Your task to perform on an android device: toggle notifications settings in the gmail app Image 0: 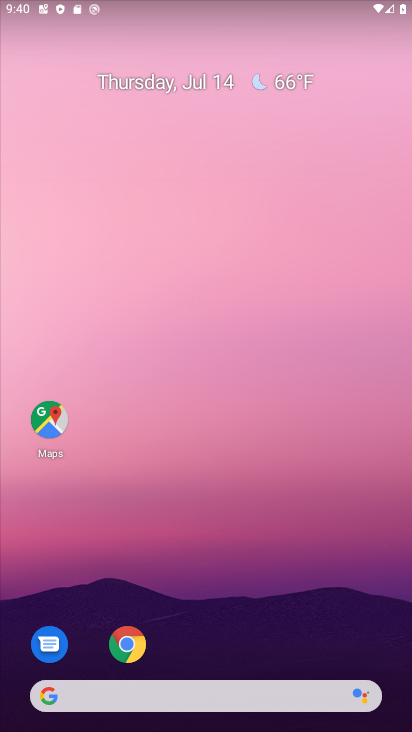
Step 0: drag from (264, 626) to (251, 286)
Your task to perform on an android device: toggle notifications settings in the gmail app Image 1: 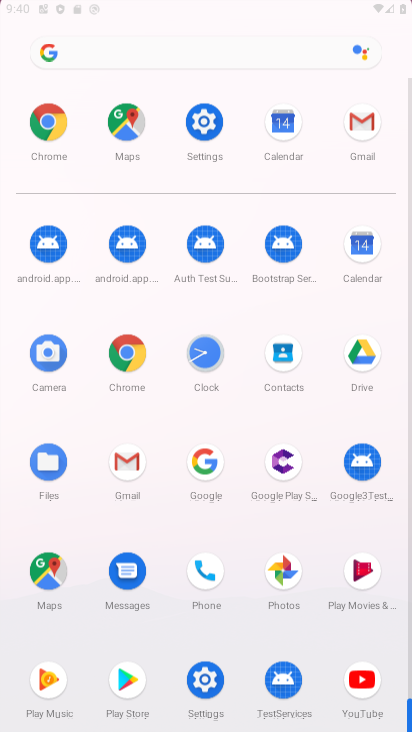
Step 1: click (167, 107)
Your task to perform on an android device: toggle notifications settings in the gmail app Image 2: 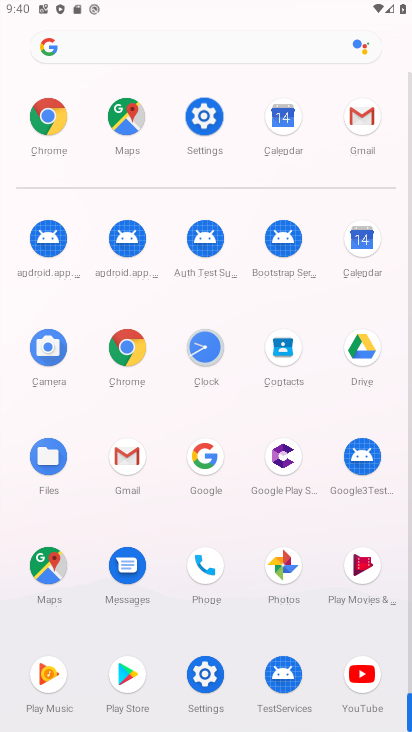
Step 2: drag from (258, 534) to (236, 150)
Your task to perform on an android device: toggle notifications settings in the gmail app Image 3: 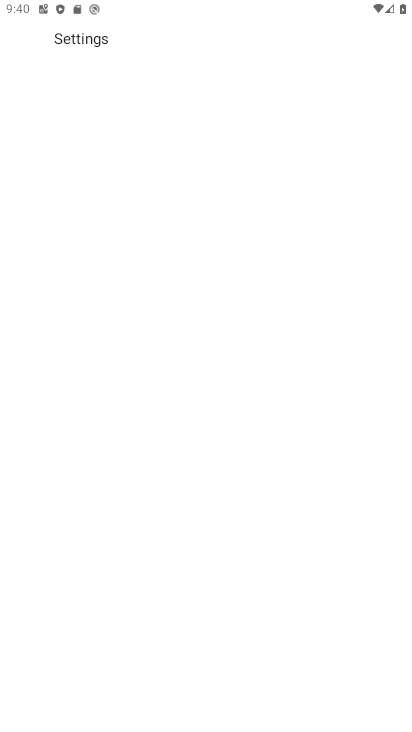
Step 3: click (246, 226)
Your task to perform on an android device: toggle notifications settings in the gmail app Image 4: 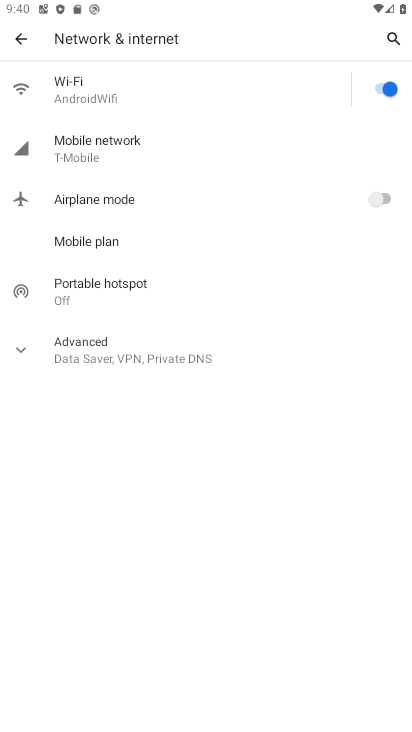
Step 4: press home button
Your task to perform on an android device: toggle notifications settings in the gmail app Image 5: 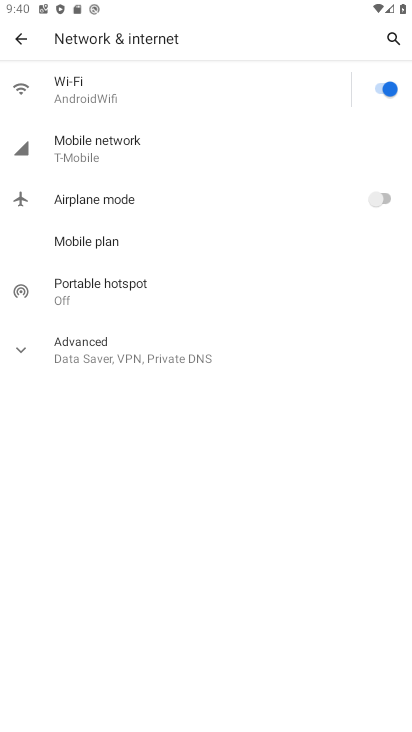
Step 5: press home button
Your task to perform on an android device: toggle notifications settings in the gmail app Image 6: 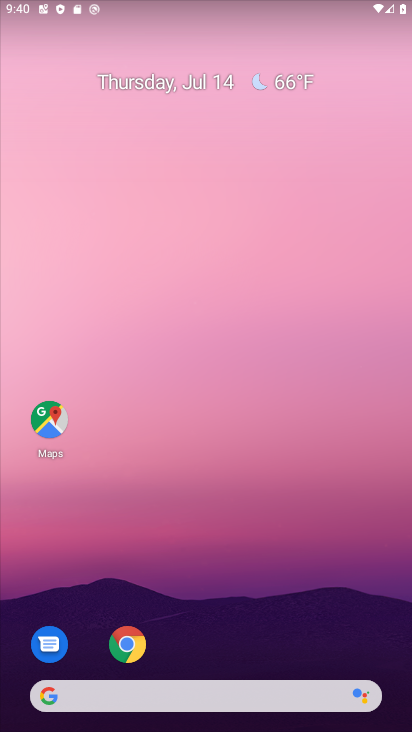
Step 6: click (197, 197)
Your task to perform on an android device: toggle notifications settings in the gmail app Image 7: 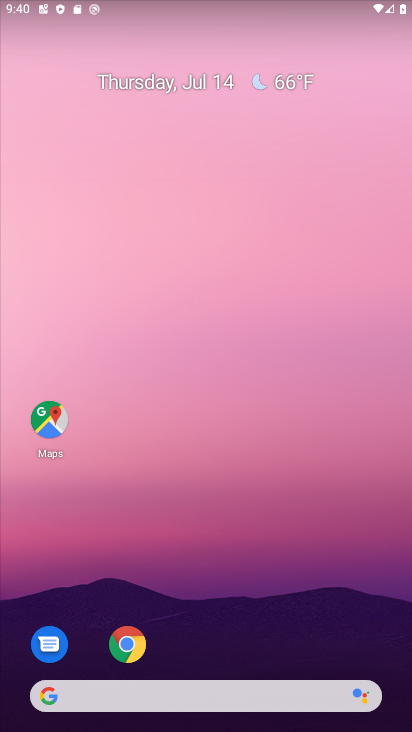
Step 7: click (191, 326)
Your task to perform on an android device: toggle notifications settings in the gmail app Image 8: 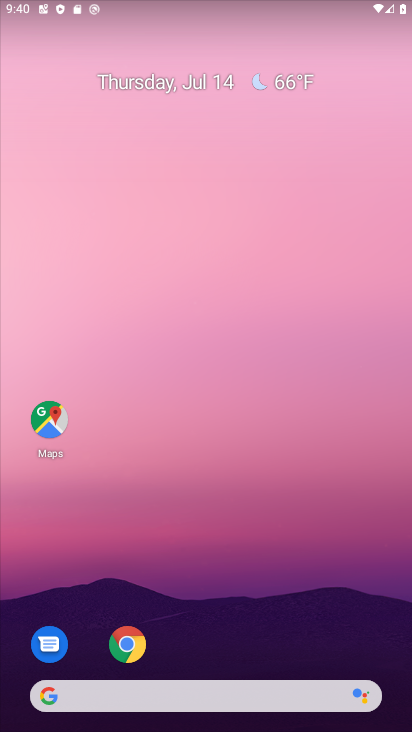
Step 8: drag from (272, 509) to (189, 284)
Your task to perform on an android device: toggle notifications settings in the gmail app Image 9: 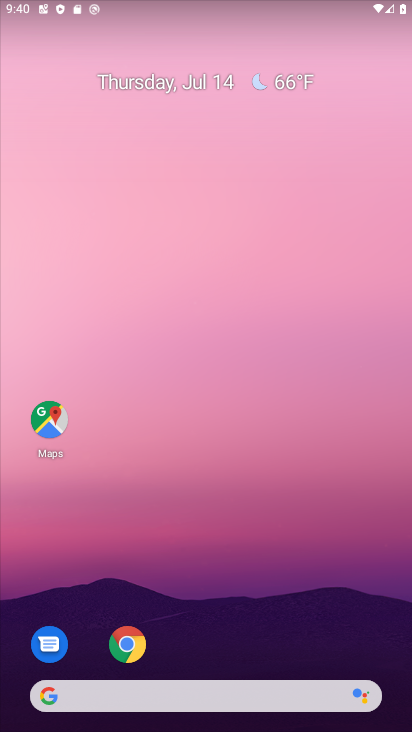
Step 9: drag from (189, 516) to (166, 173)
Your task to perform on an android device: toggle notifications settings in the gmail app Image 10: 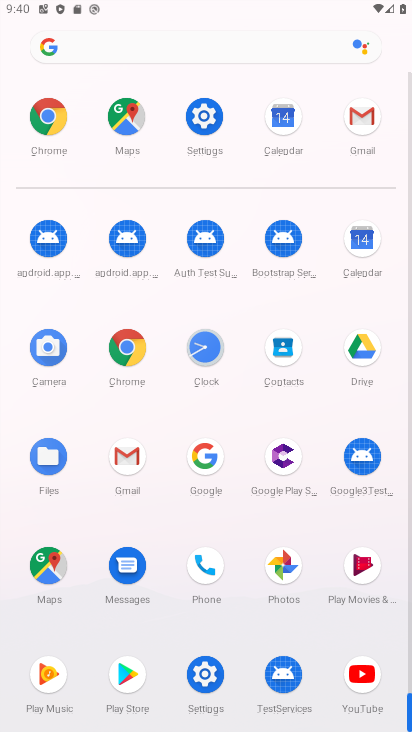
Step 10: drag from (181, 572) to (197, 162)
Your task to perform on an android device: toggle notifications settings in the gmail app Image 11: 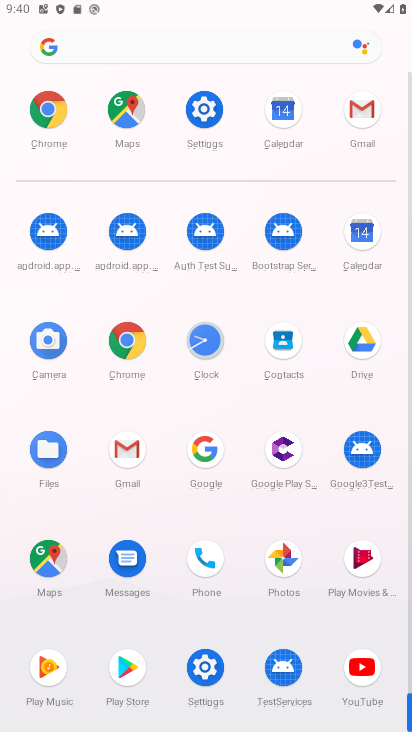
Step 11: click (370, 124)
Your task to perform on an android device: toggle notifications settings in the gmail app Image 12: 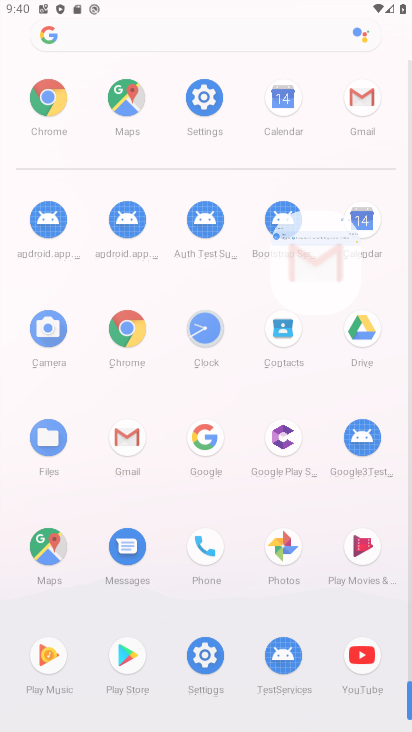
Step 12: click (364, 117)
Your task to perform on an android device: toggle notifications settings in the gmail app Image 13: 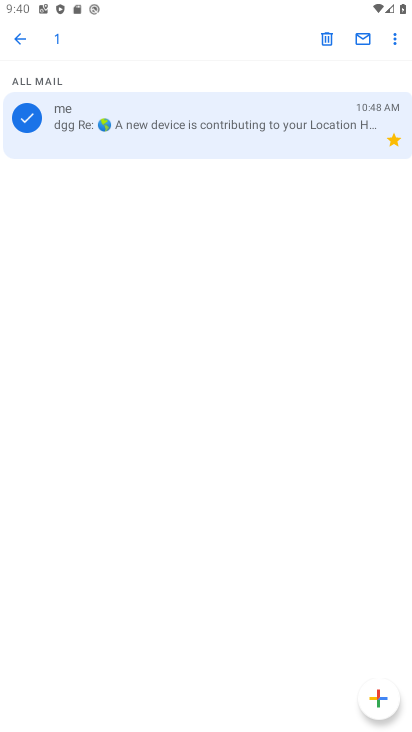
Step 13: click (364, 117)
Your task to perform on an android device: toggle notifications settings in the gmail app Image 14: 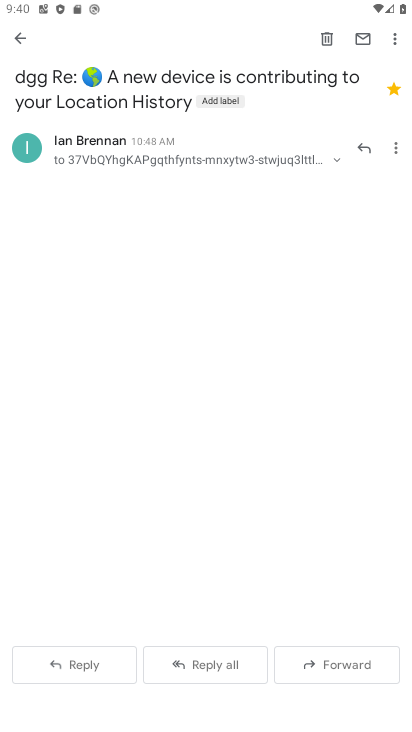
Step 14: click (12, 32)
Your task to perform on an android device: toggle notifications settings in the gmail app Image 15: 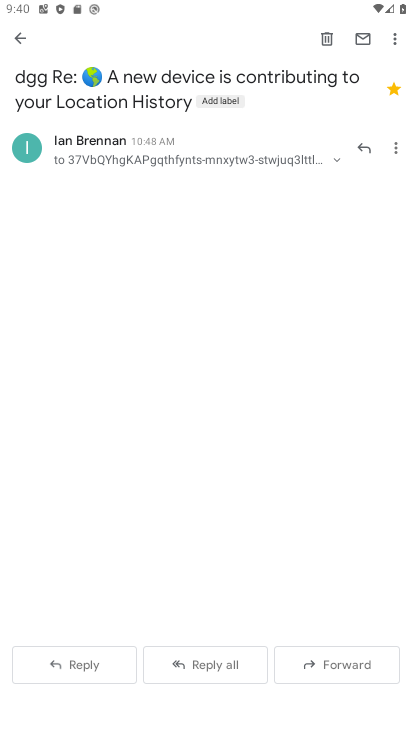
Step 15: click (25, 40)
Your task to perform on an android device: toggle notifications settings in the gmail app Image 16: 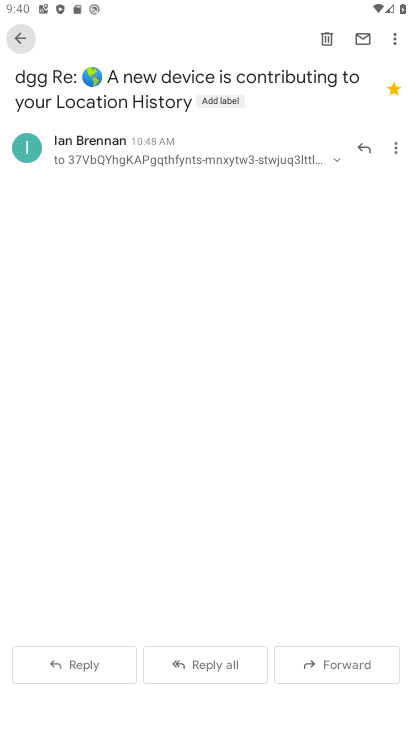
Step 16: click (25, 39)
Your task to perform on an android device: toggle notifications settings in the gmail app Image 17: 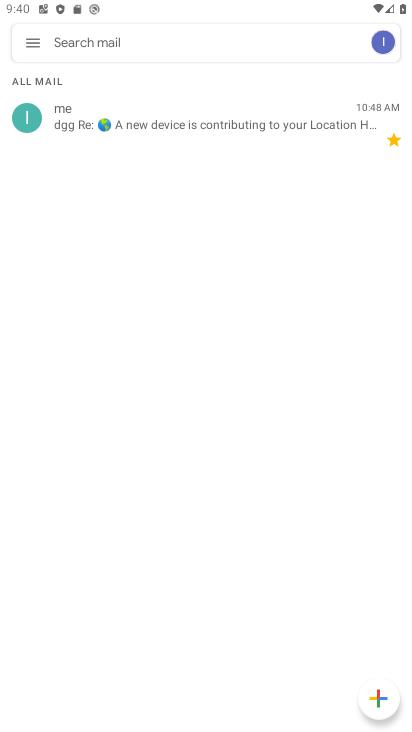
Step 17: drag from (32, 38) to (32, 179)
Your task to perform on an android device: toggle notifications settings in the gmail app Image 18: 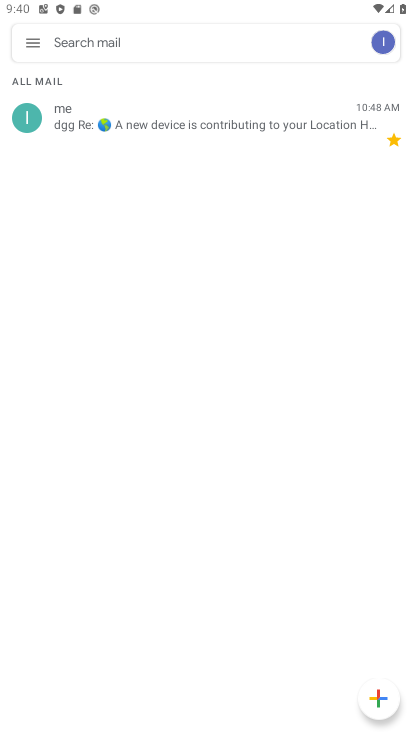
Step 18: click (26, 43)
Your task to perform on an android device: toggle notifications settings in the gmail app Image 19: 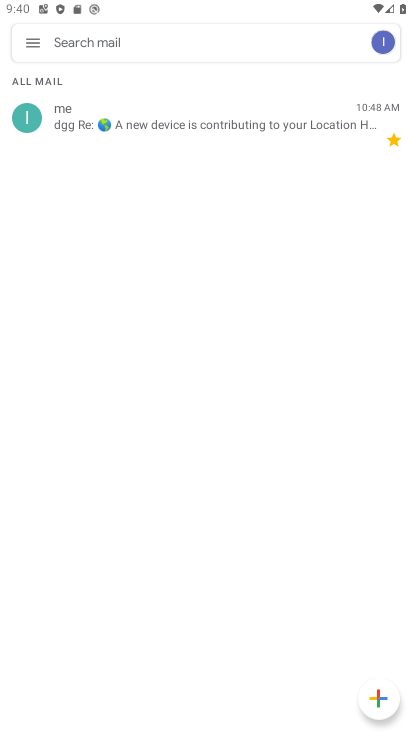
Step 19: drag from (26, 43) to (399, 606)
Your task to perform on an android device: toggle notifications settings in the gmail app Image 20: 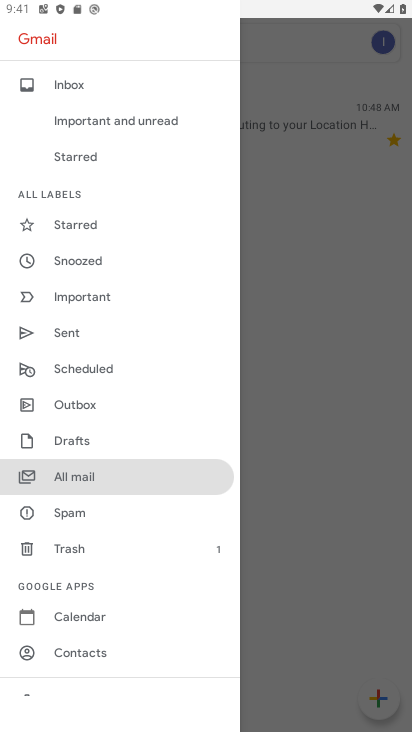
Step 20: drag from (88, 605) to (114, 272)
Your task to perform on an android device: toggle notifications settings in the gmail app Image 21: 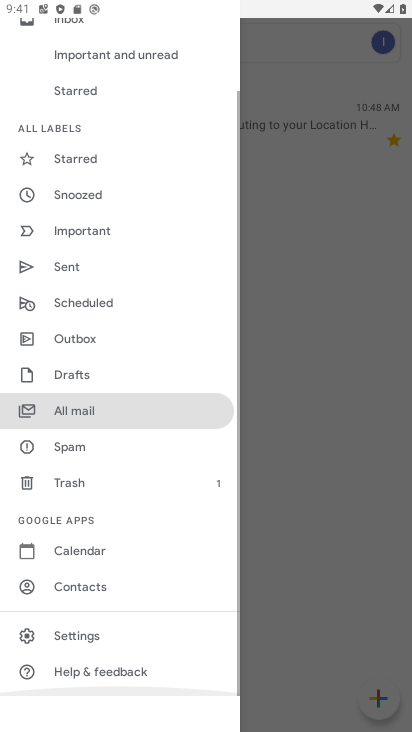
Step 21: drag from (119, 518) to (127, 245)
Your task to perform on an android device: toggle notifications settings in the gmail app Image 22: 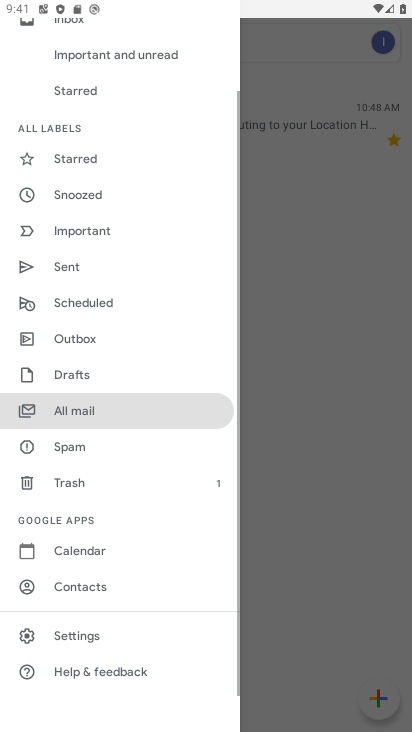
Step 22: click (87, 640)
Your task to perform on an android device: toggle notifications settings in the gmail app Image 23: 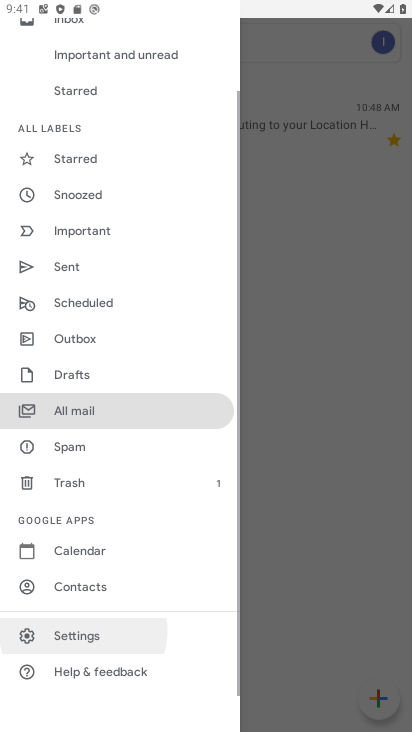
Step 23: click (85, 641)
Your task to perform on an android device: toggle notifications settings in the gmail app Image 24: 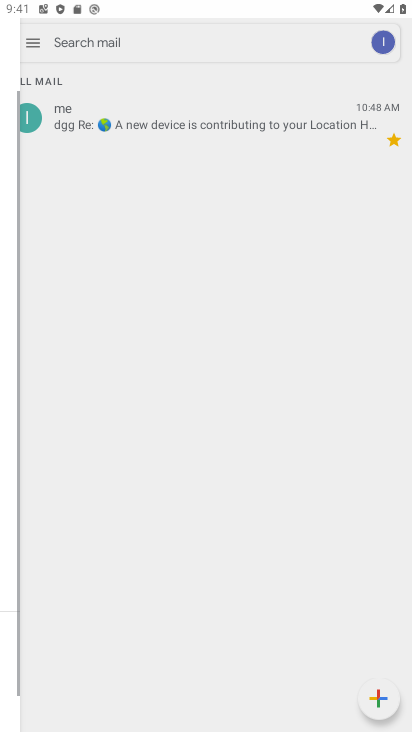
Step 24: click (85, 641)
Your task to perform on an android device: toggle notifications settings in the gmail app Image 25: 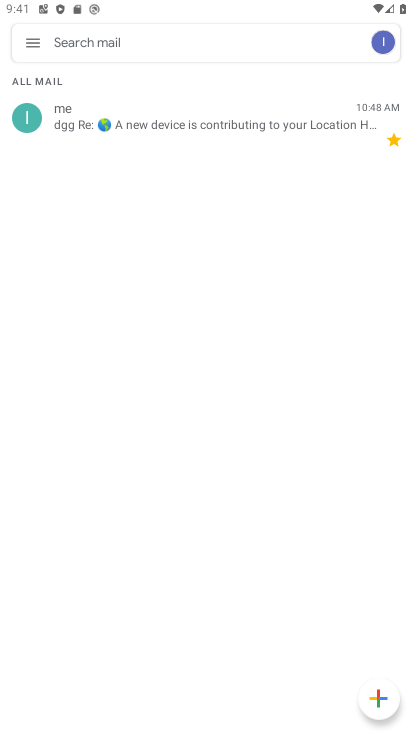
Step 25: click (85, 641)
Your task to perform on an android device: toggle notifications settings in the gmail app Image 26: 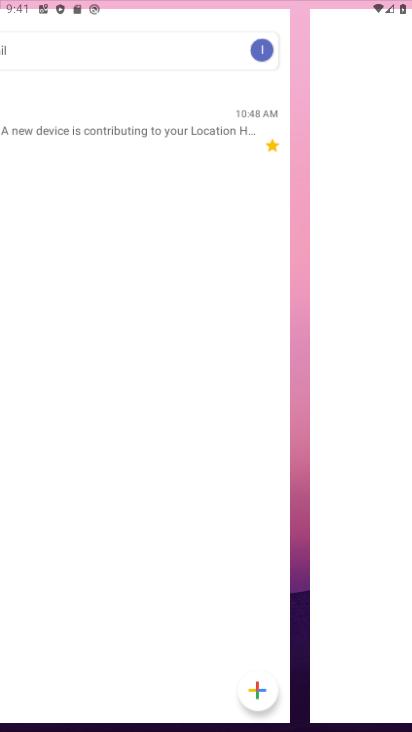
Step 26: click (85, 641)
Your task to perform on an android device: toggle notifications settings in the gmail app Image 27: 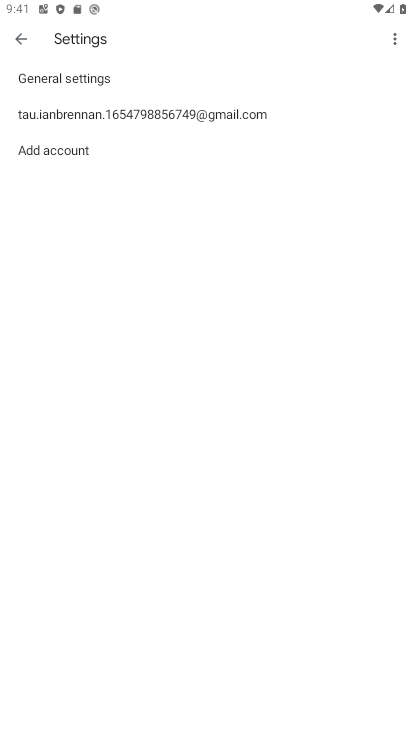
Step 27: click (65, 118)
Your task to perform on an android device: toggle notifications settings in the gmail app Image 28: 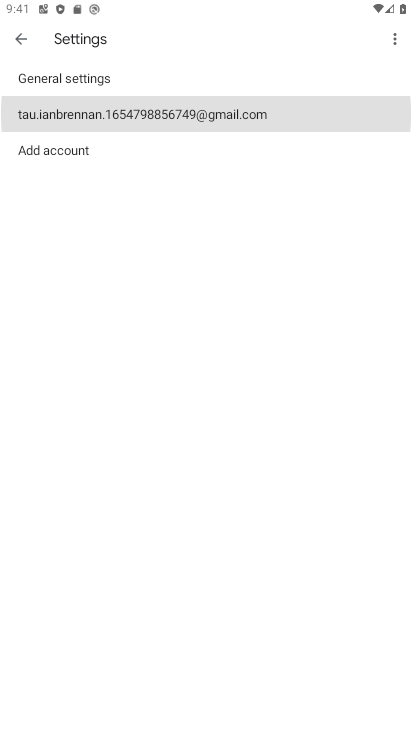
Step 28: click (67, 115)
Your task to perform on an android device: toggle notifications settings in the gmail app Image 29: 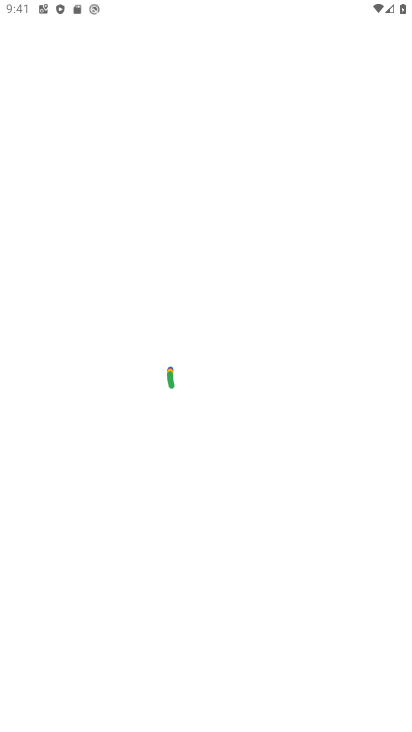
Step 29: press back button
Your task to perform on an android device: toggle notifications settings in the gmail app Image 30: 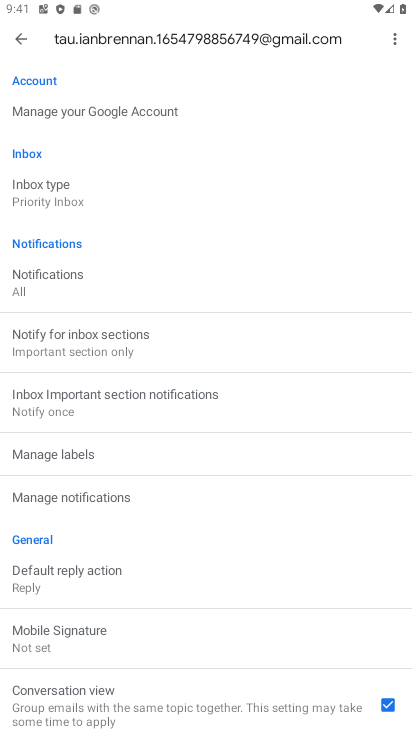
Step 30: click (41, 275)
Your task to perform on an android device: toggle notifications settings in the gmail app Image 31: 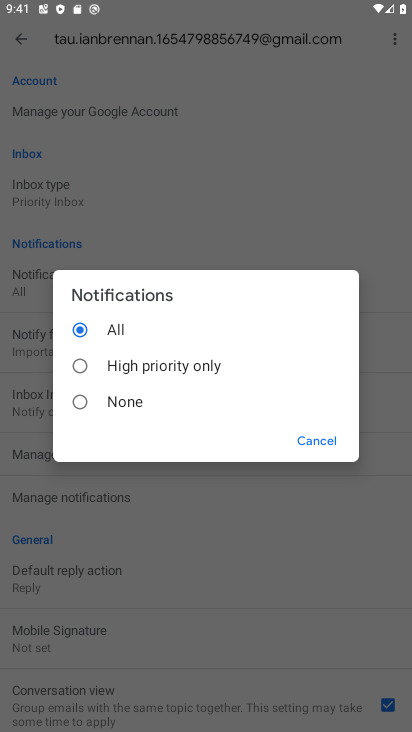
Step 31: click (78, 366)
Your task to perform on an android device: toggle notifications settings in the gmail app Image 32: 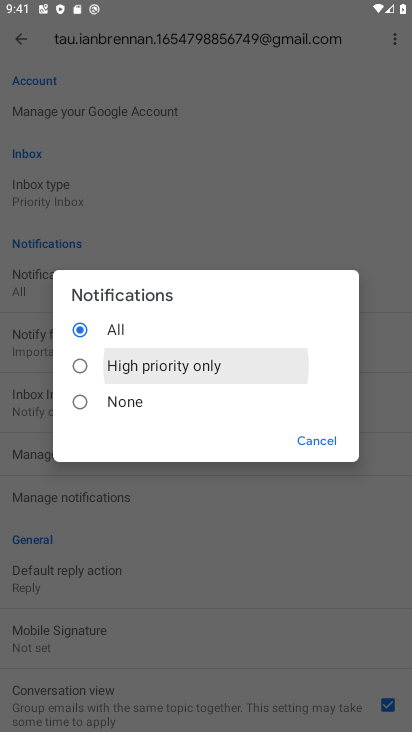
Step 32: click (79, 364)
Your task to perform on an android device: toggle notifications settings in the gmail app Image 33: 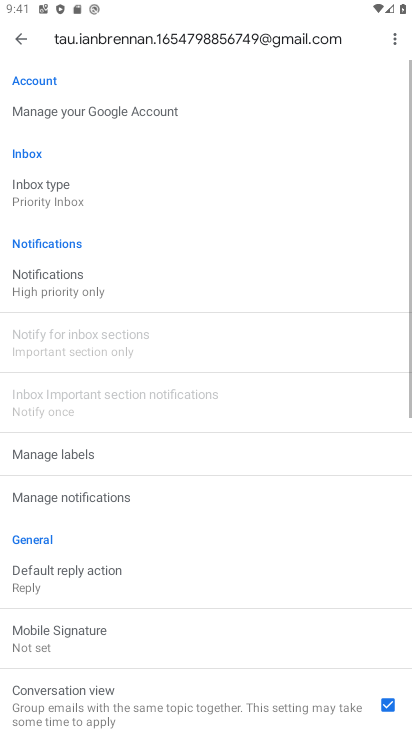
Step 33: task complete